Your task to perform on an android device: change notification settings in the gmail app Image 0: 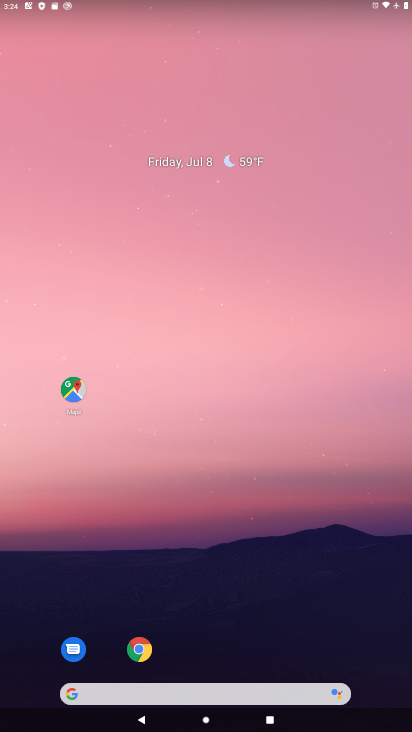
Step 0: drag from (258, 521) to (271, 150)
Your task to perform on an android device: change notification settings in the gmail app Image 1: 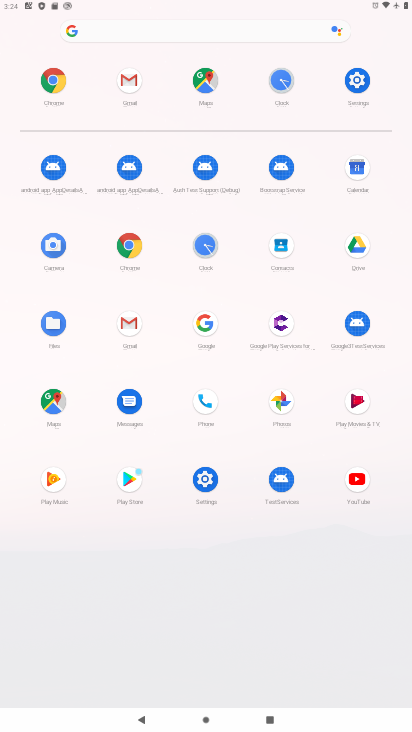
Step 1: click (131, 75)
Your task to perform on an android device: change notification settings in the gmail app Image 2: 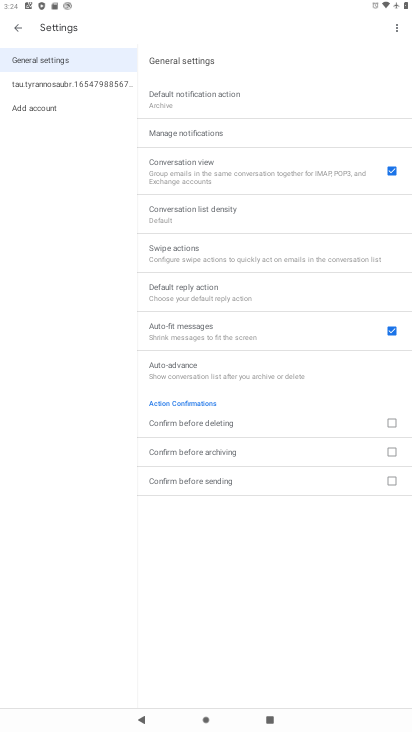
Step 2: click (79, 82)
Your task to perform on an android device: change notification settings in the gmail app Image 3: 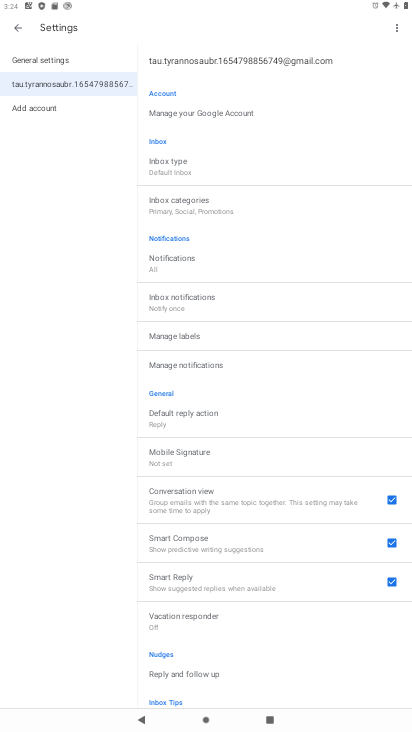
Step 3: click (191, 362)
Your task to perform on an android device: change notification settings in the gmail app Image 4: 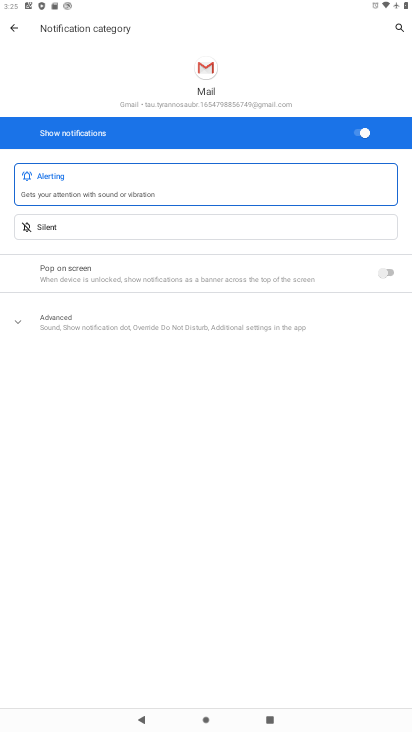
Step 4: click (364, 131)
Your task to perform on an android device: change notification settings in the gmail app Image 5: 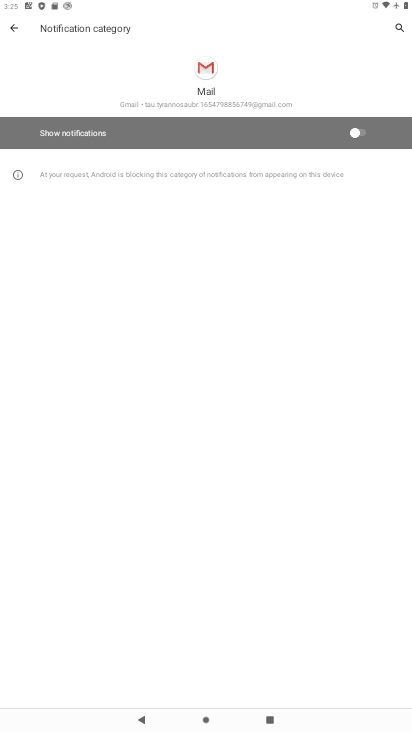
Step 5: task complete